Your task to perform on an android device: turn on priority inbox in the gmail app Image 0: 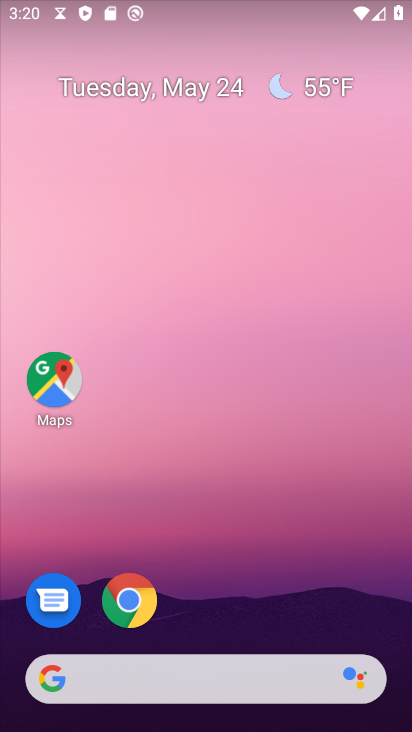
Step 0: drag from (176, 651) to (170, 176)
Your task to perform on an android device: turn on priority inbox in the gmail app Image 1: 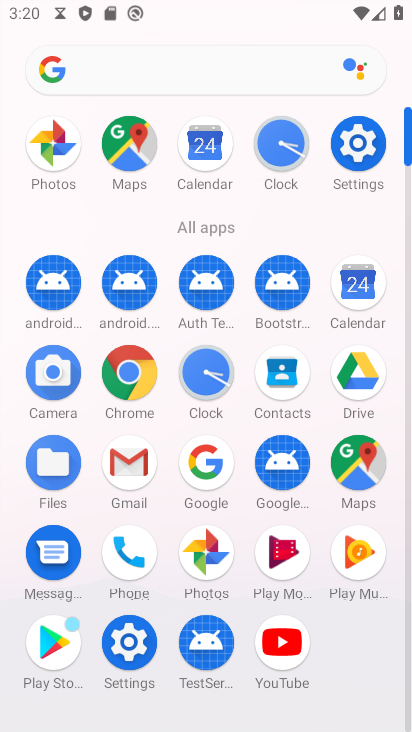
Step 1: click (143, 484)
Your task to perform on an android device: turn on priority inbox in the gmail app Image 2: 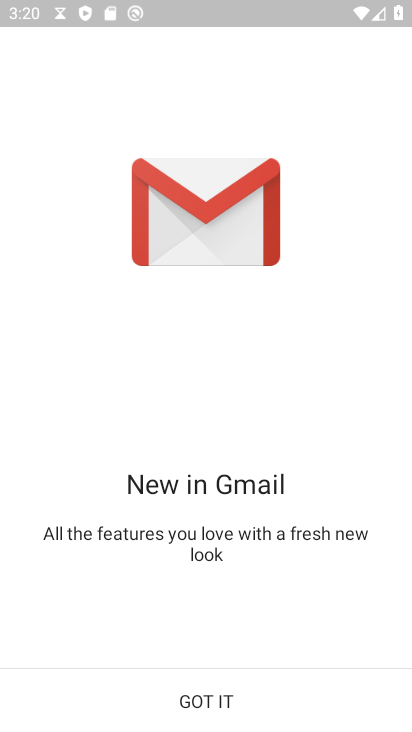
Step 2: click (198, 695)
Your task to perform on an android device: turn on priority inbox in the gmail app Image 3: 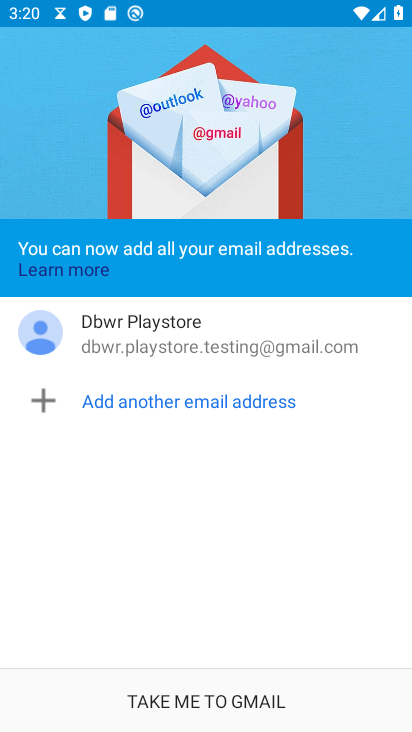
Step 3: click (198, 720)
Your task to perform on an android device: turn on priority inbox in the gmail app Image 4: 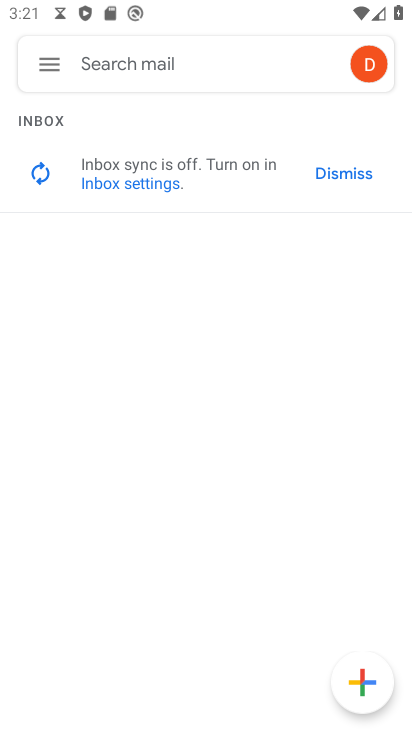
Step 4: click (40, 65)
Your task to perform on an android device: turn on priority inbox in the gmail app Image 5: 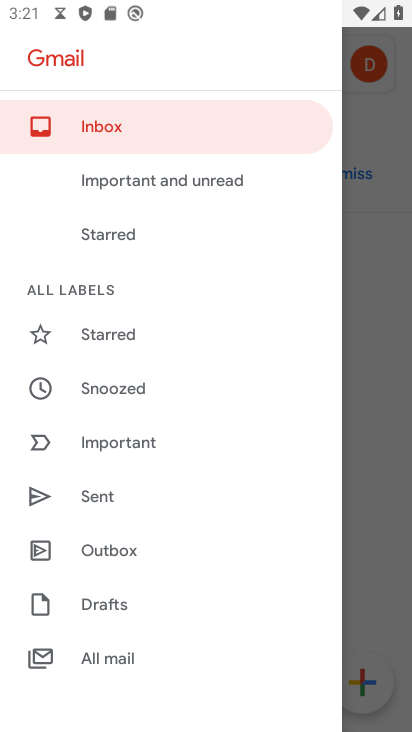
Step 5: drag from (161, 629) to (150, 124)
Your task to perform on an android device: turn on priority inbox in the gmail app Image 6: 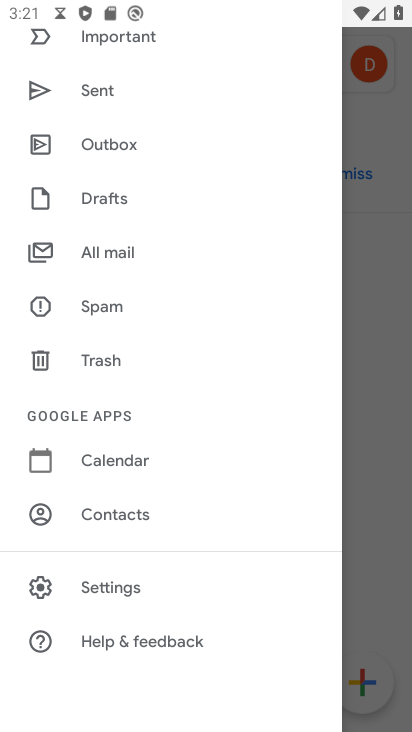
Step 6: click (119, 587)
Your task to perform on an android device: turn on priority inbox in the gmail app Image 7: 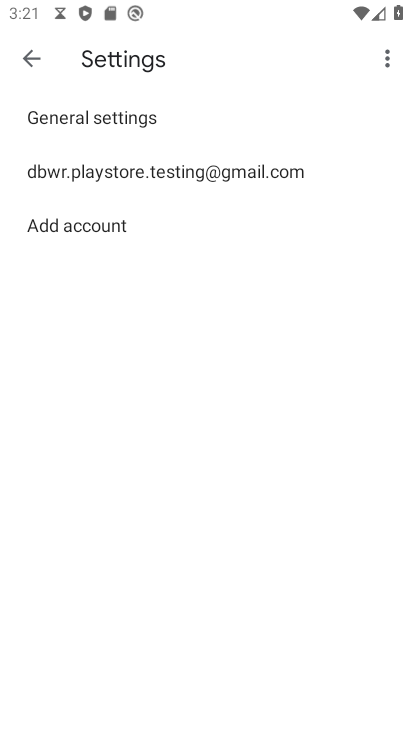
Step 7: click (106, 176)
Your task to perform on an android device: turn on priority inbox in the gmail app Image 8: 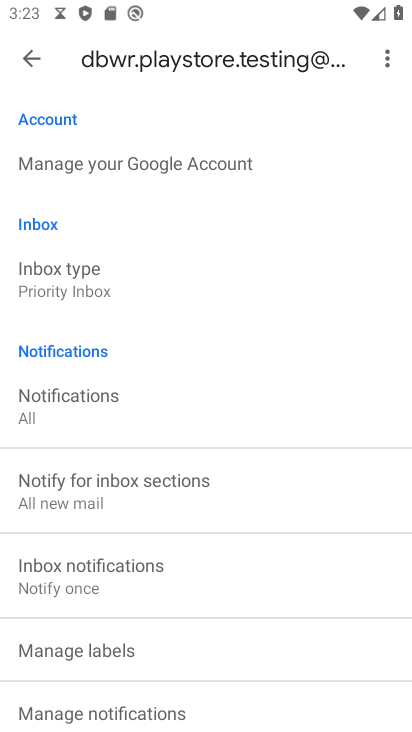
Step 8: task complete